Your task to perform on an android device: turn notification dots on Image 0: 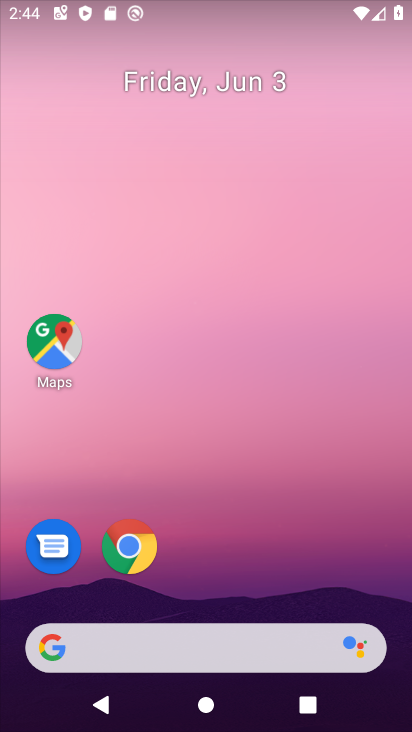
Step 0: drag from (259, 541) to (234, 28)
Your task to perform on an android device: turn notification dots on Image 1: 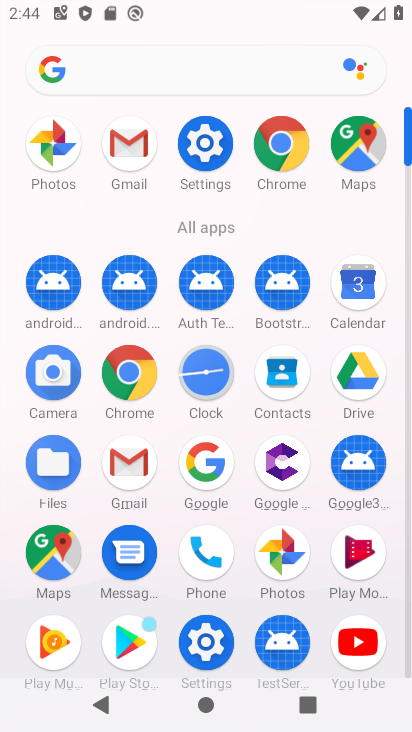
Step 1: click (198, 134)
Your task to perform on an android device: turn notification dots on Image 2: 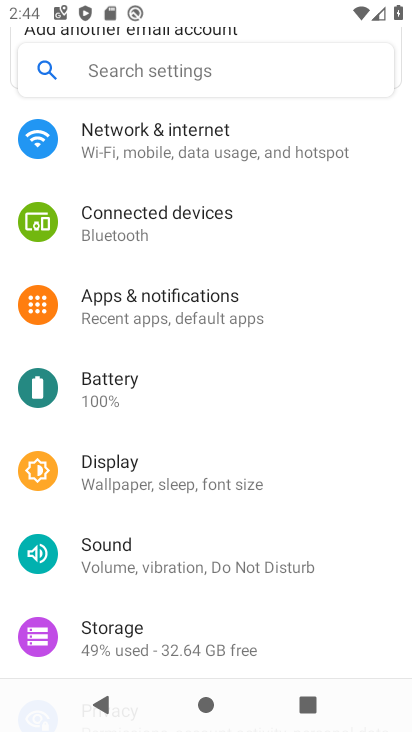
Step 2: click (170, 317)
Your task to perform on an android device: turn notification dots on Image 3: 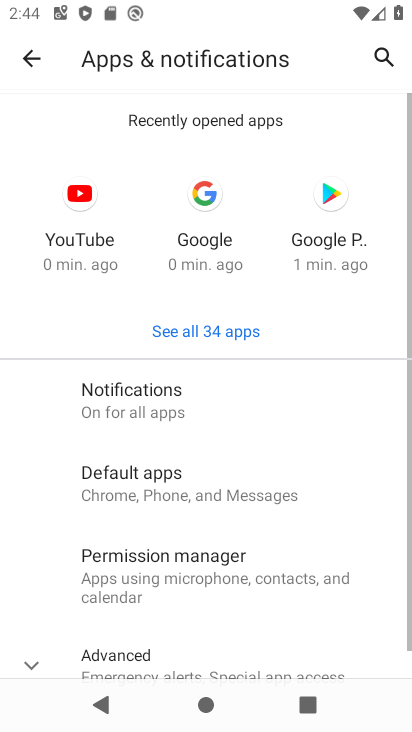
Step 3: click (136, 398)
Your task to perform on an android device: turn notification dots on Image 4: 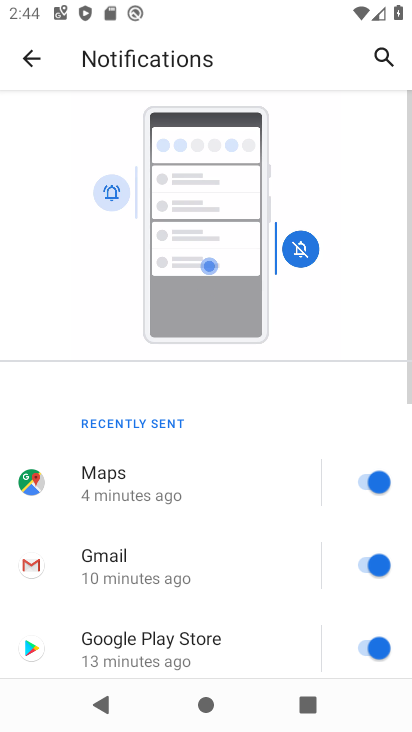
Step 4: drag from (146, 625) to (247, 144)
Your task to perform on an android device: turn notification dots on Image 5: 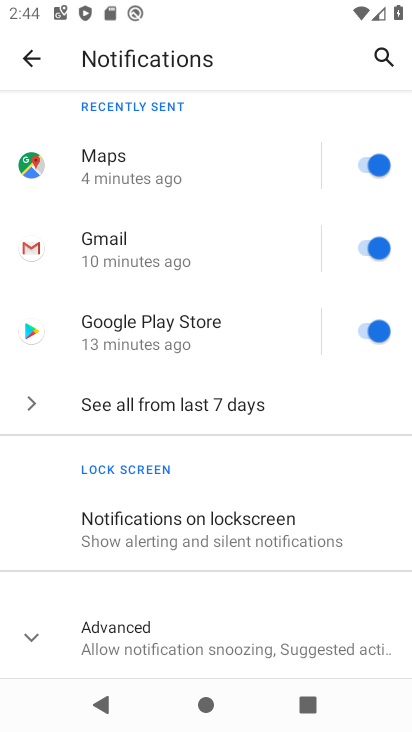
Step 5: click (168, 249)
Your task to perform on an android device: turn notification dots on Image 6: 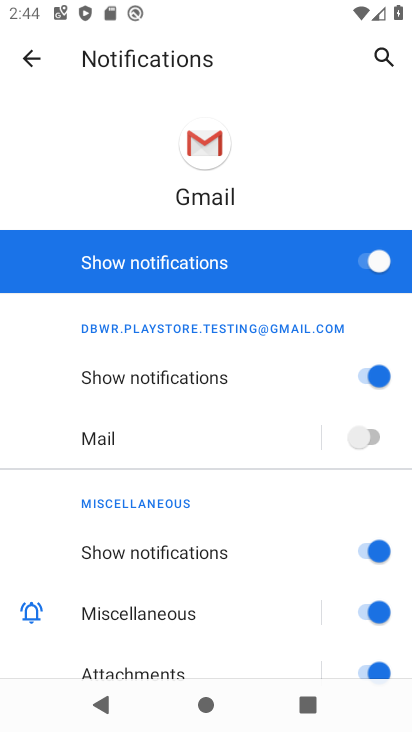
Step 6: drag from (76, 620) to (76, 233)
Your task to perform on an android device: turn notification dots on Image 7: 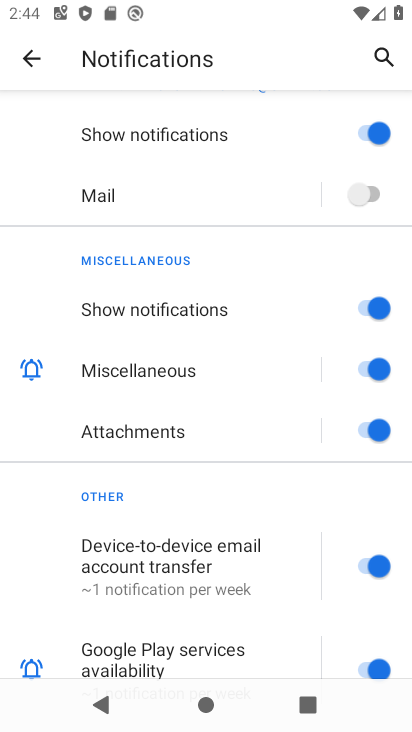
Step 7: drag from (110, 615) to (115, 171)
Your task to perform on an android device: turn notification dots on Image 8: 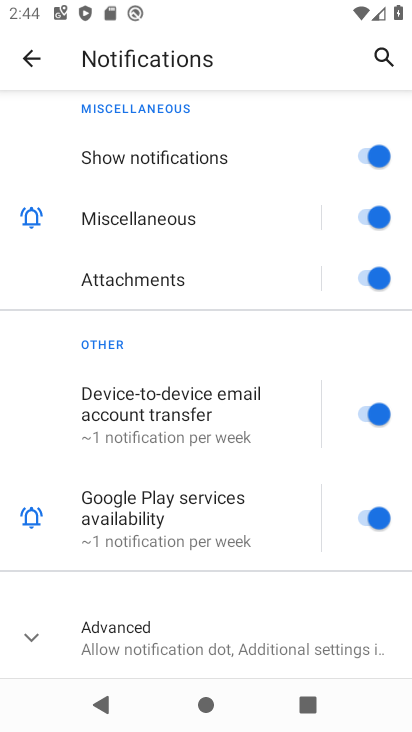
Step 8: click (98, 612)
Your task to perform on an android device: turn notification dots on Image 9: 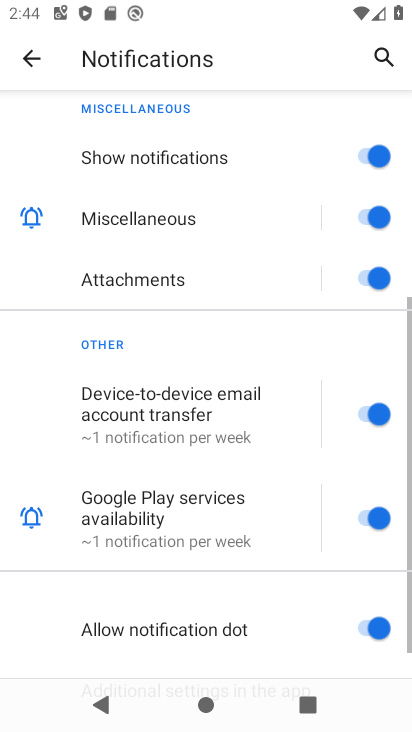
Step 9: task complete